Your task to perform on an android device: Toggle the flashlight Image 0: 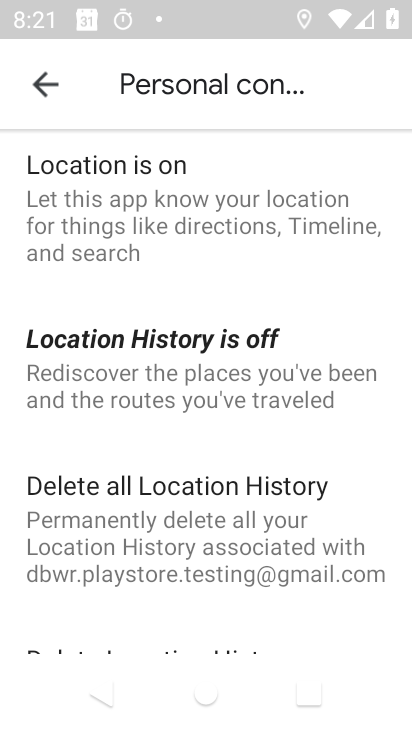
Step 0: press home button
Your task to perform on an android device: Toggle the flashlight Image 1: 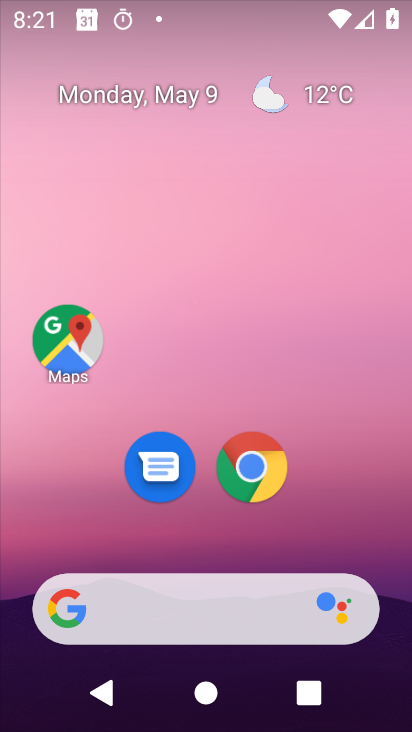
Step 1: task complete